Your task to perform on an android device: Go to Wikipedia Image 0: 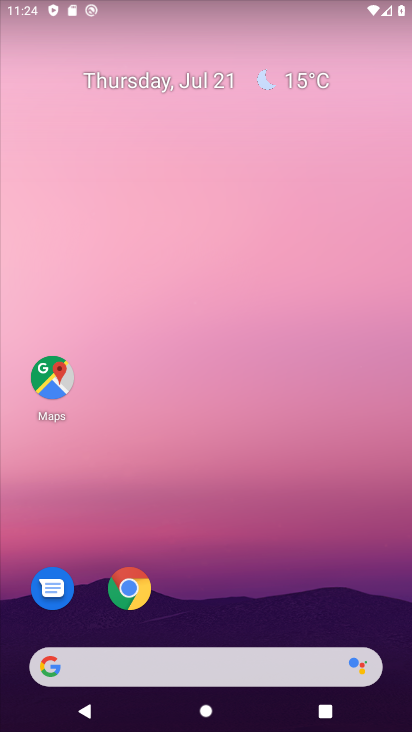
Step 0: click (144, 578)
Your task to perform on an android device: Go to Wikipedia Image 1: 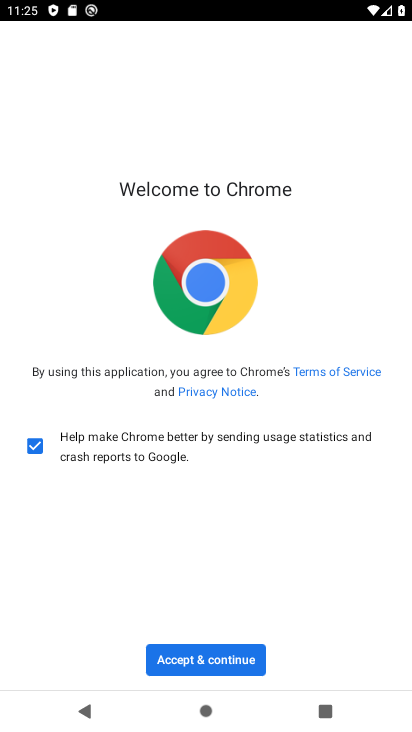
Step 1: click (190, 656)
Your task to perform on an android device: Go to Wikipedia Image 2: 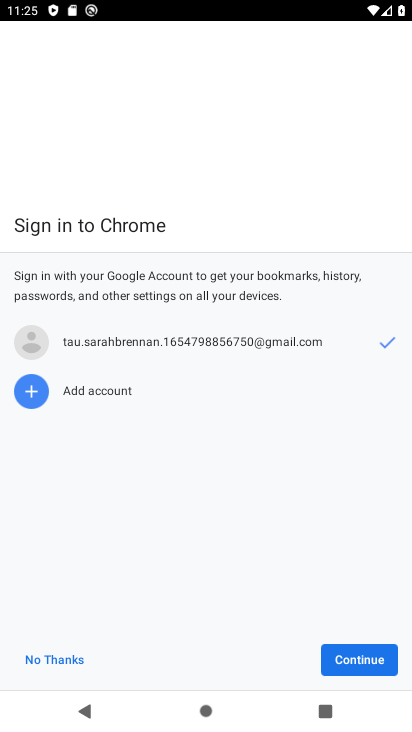
Step 2: click (372, 657)
Your task to perform on an android device: Go to Wikipedia Image 3: 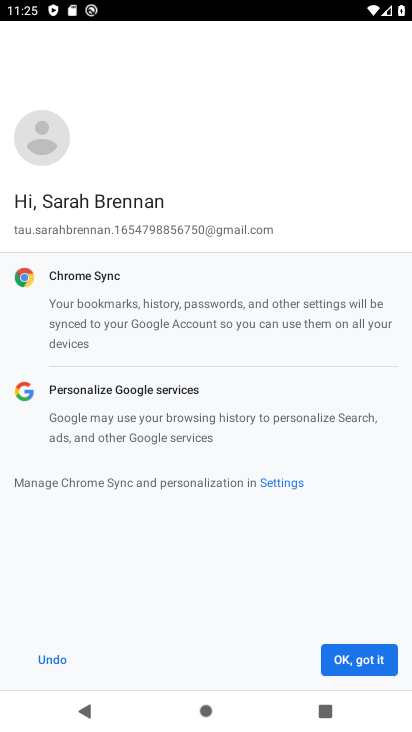
Step 3: click (379, 664)
Your task to perform on an android device: Go to Wikipedia Image 4: 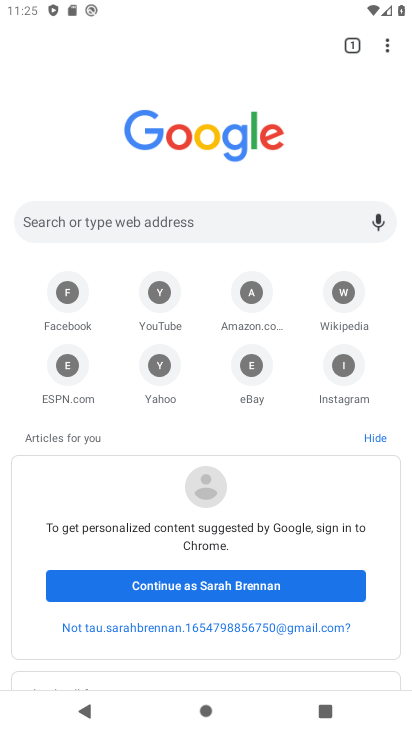
Step 4: click (360, 289)
Your task to perform on an android device: Go to Wikipedia Image 5: 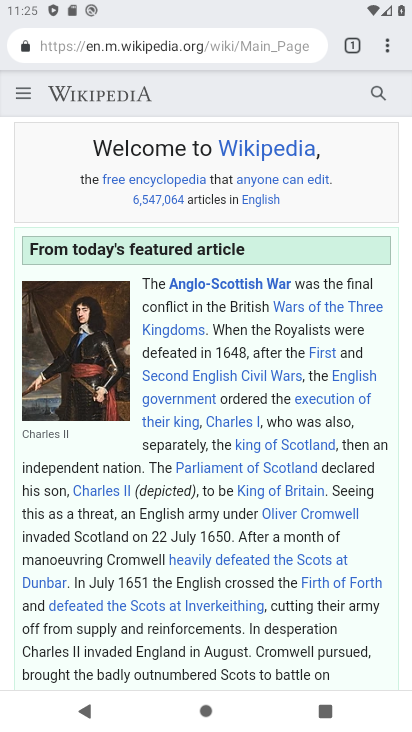
Step 5: task complete